Your task to perform on an android device: Open Google Chrome and open the bookmarks view Image 0: 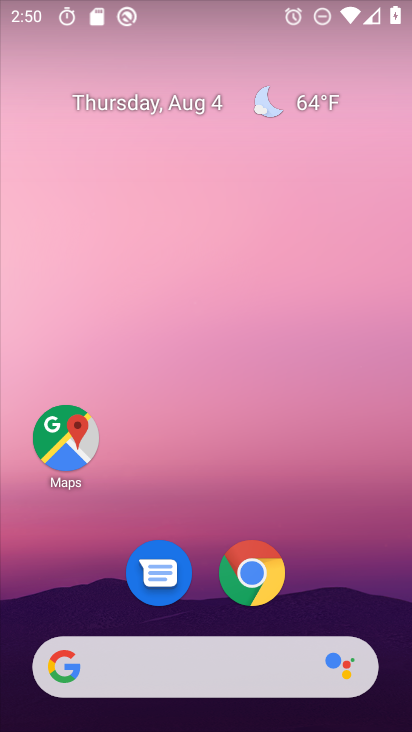
Step 0: drag from (353, 514) to (349, 144)
Your task to perform on an android device: Open Google Chrome and open the bookmarks view Image 1: 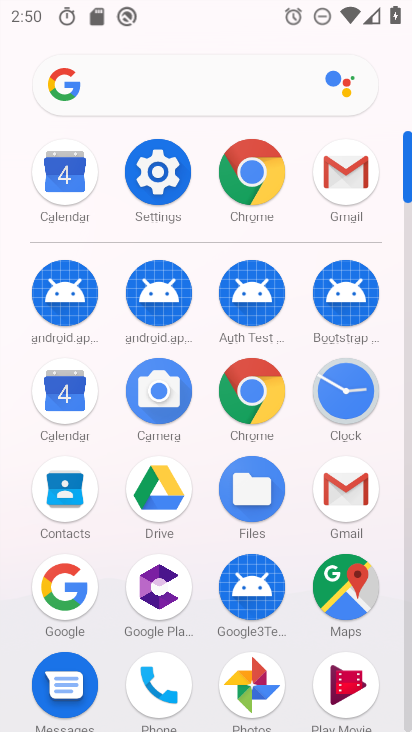
Step 1: click (241, 380)
Your task to perform on an android device: Open Google Chrome and open the bookmarks view Image 2: 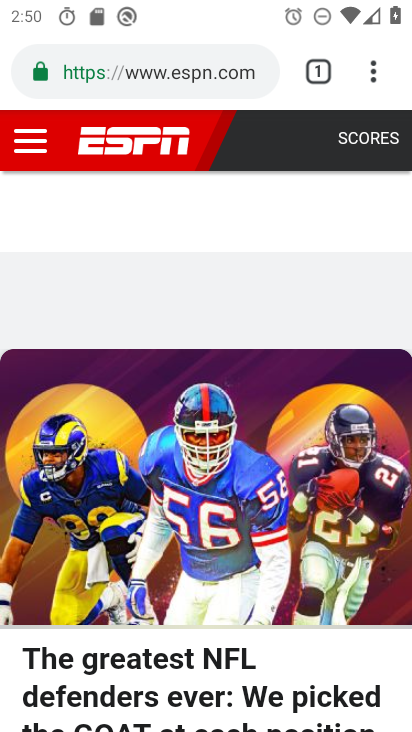
Step 2: task complete